Your task to perform on an android device: uninstall "Adobe Acrobat Reader" Image 0: 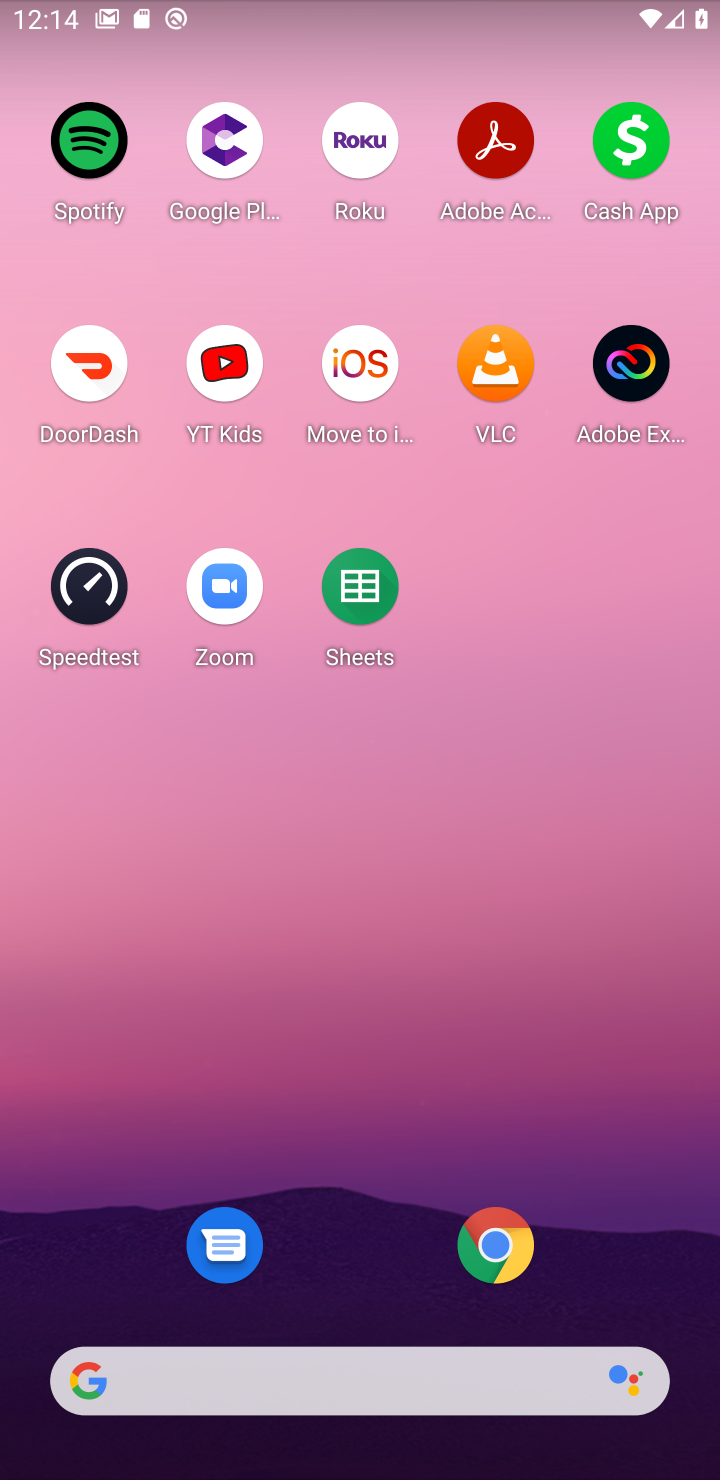
Step 0: press home button
Your task to perform on an android device: uninstall "Adobe Acrobat Reader" Image 1: 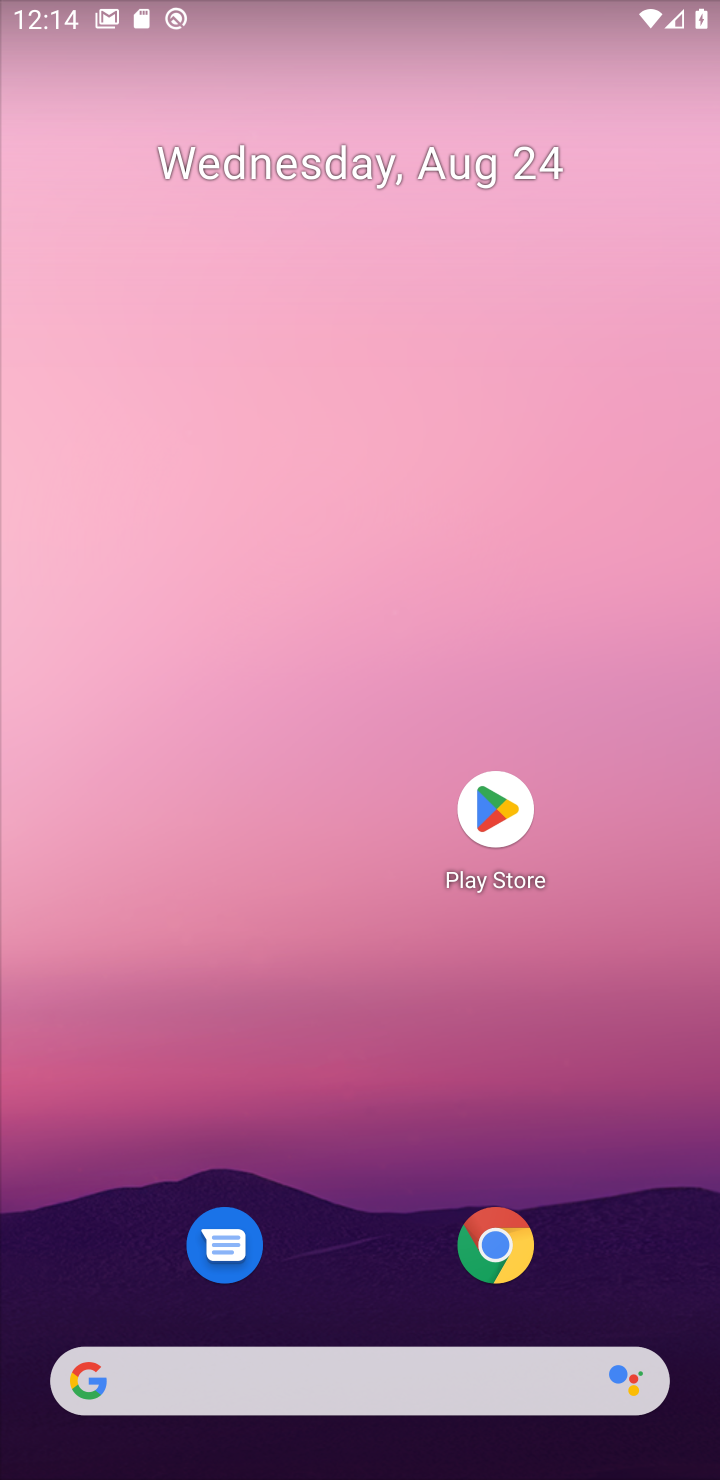
Step 1: click (510, 815)
Your task to perform on an android device: uninstall "Adobe Acrobat Reader" Image 2: 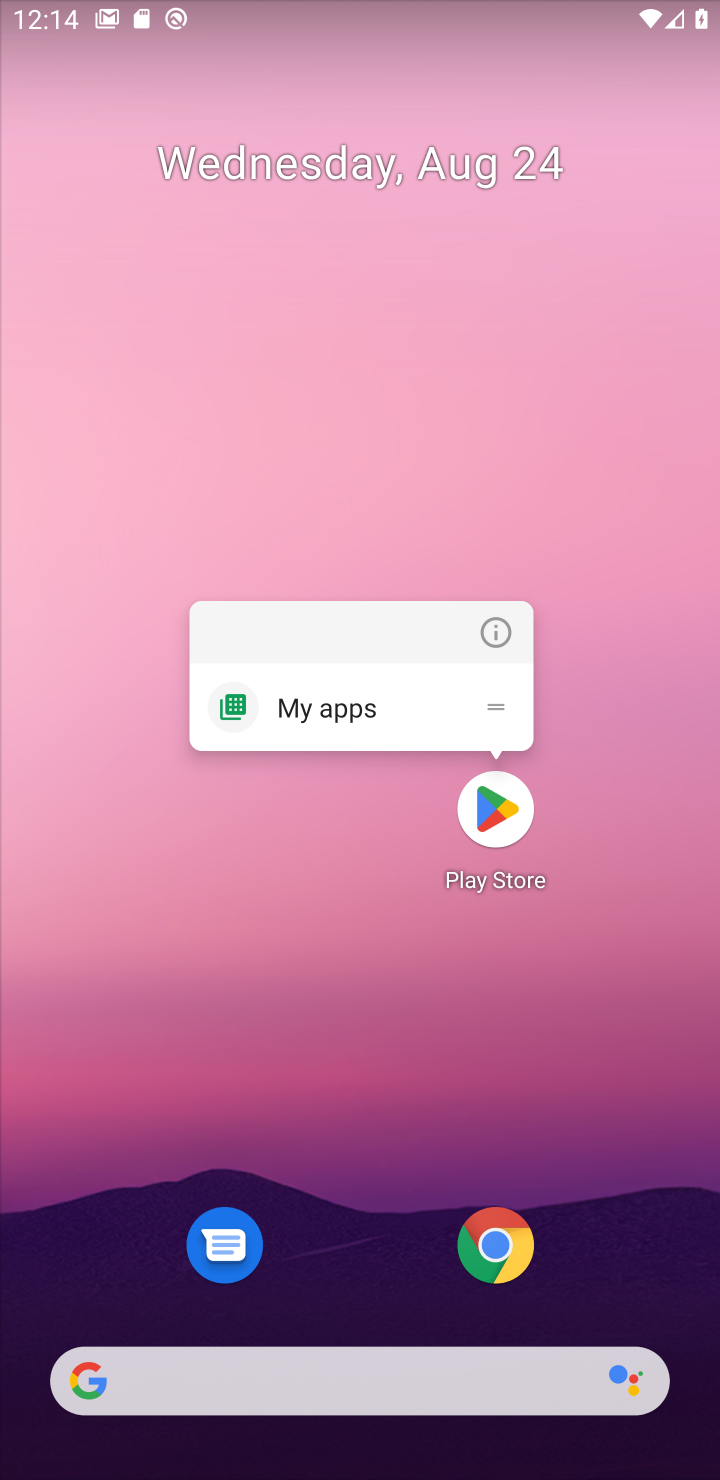
Step 2: click (510, 819)
Your task to perform on an android device: uninstall "Adobe Acrobat Reader" Image 3: 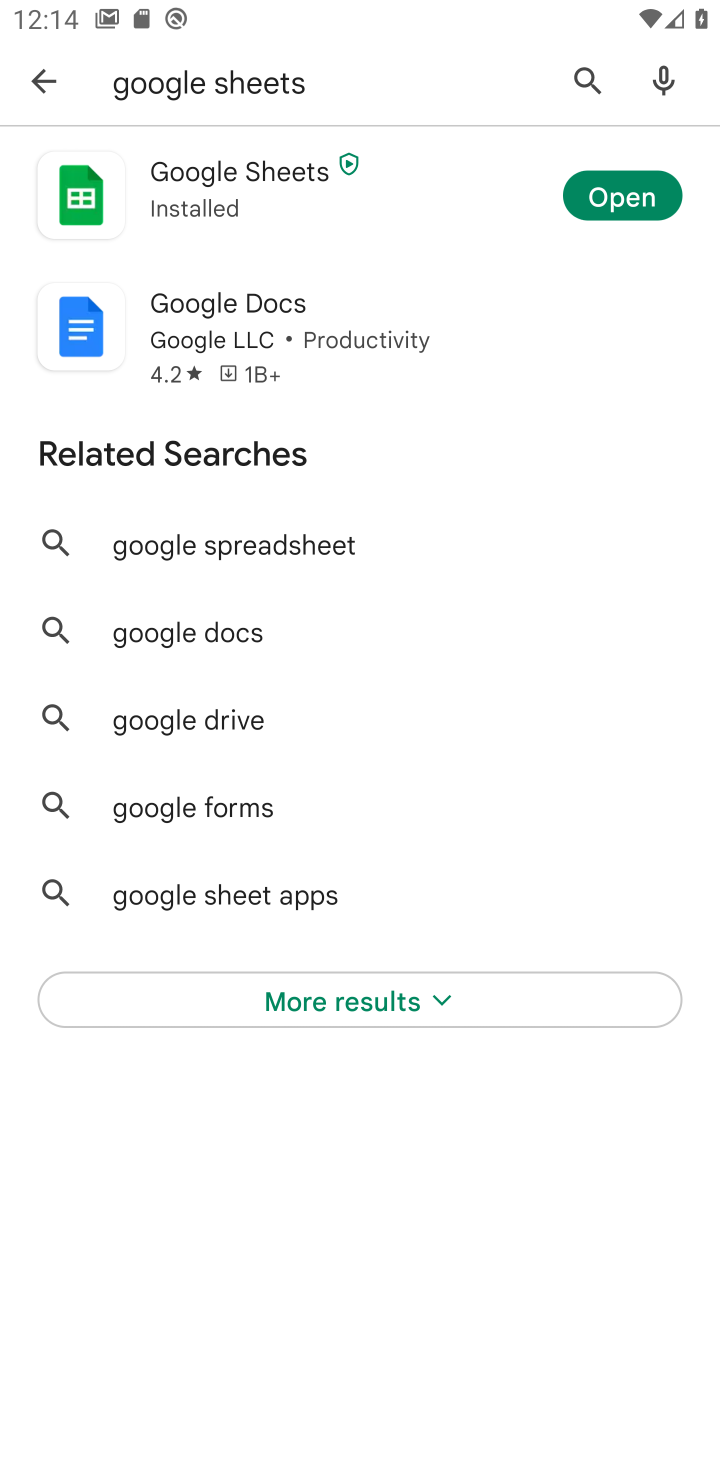
Step 3: click (575, 69)
Your task to perform on an android device: uninstall "Adobe Acrobat Reader" Image 4: 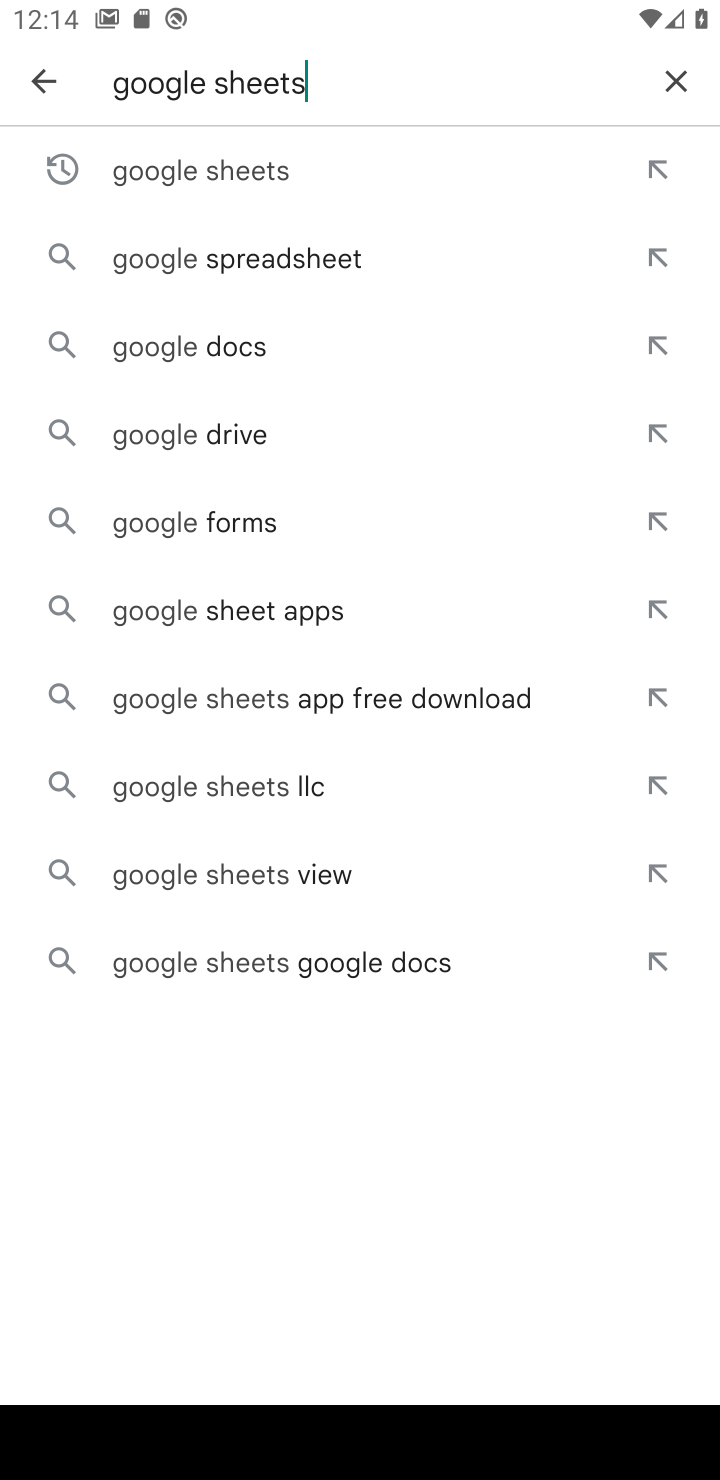
Step 4: click (671, 72)
Your task to perform on an android device: uninstall "Adobe Acrobat Reader" Image 5: 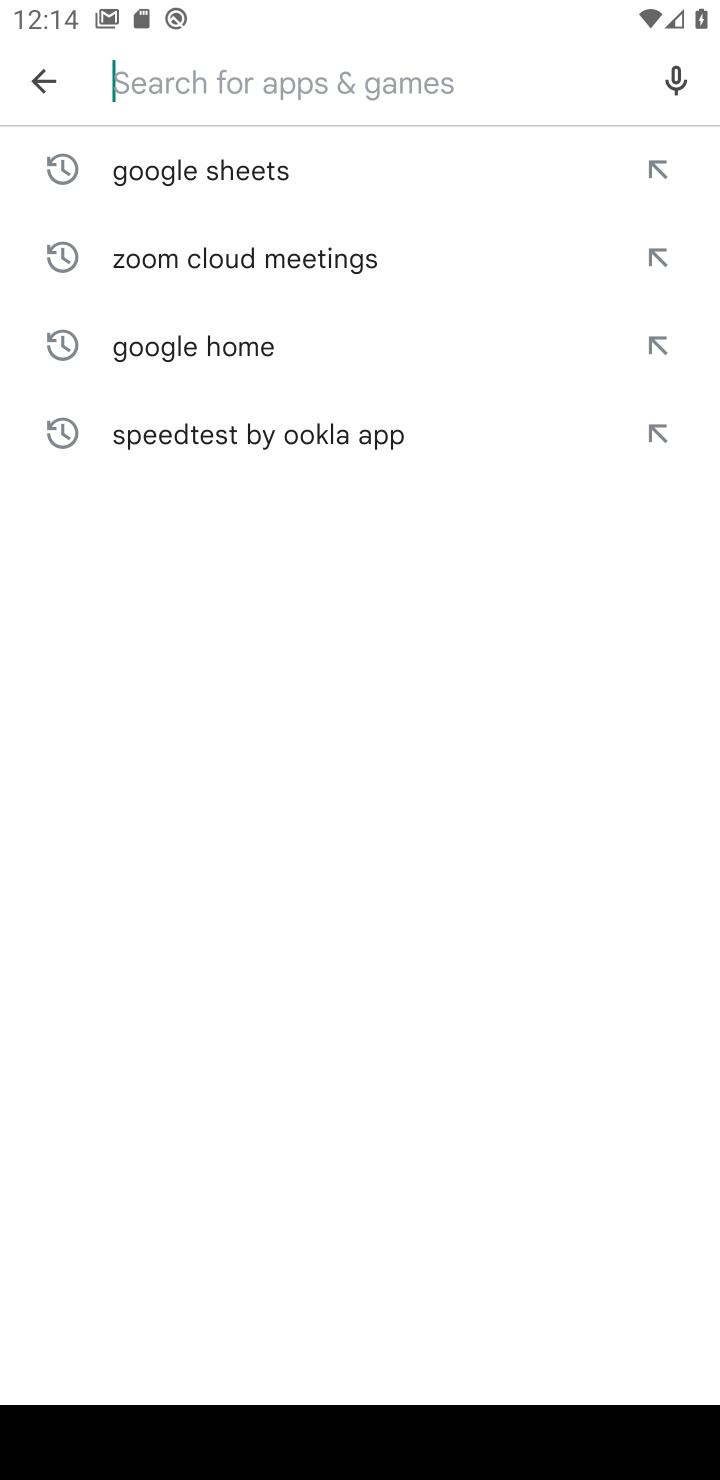
Step 5: type "Adobe Acrobat Reader"
Your task to perform on an android device: uninstall "Adobe Acrobat Reader" Image 6: 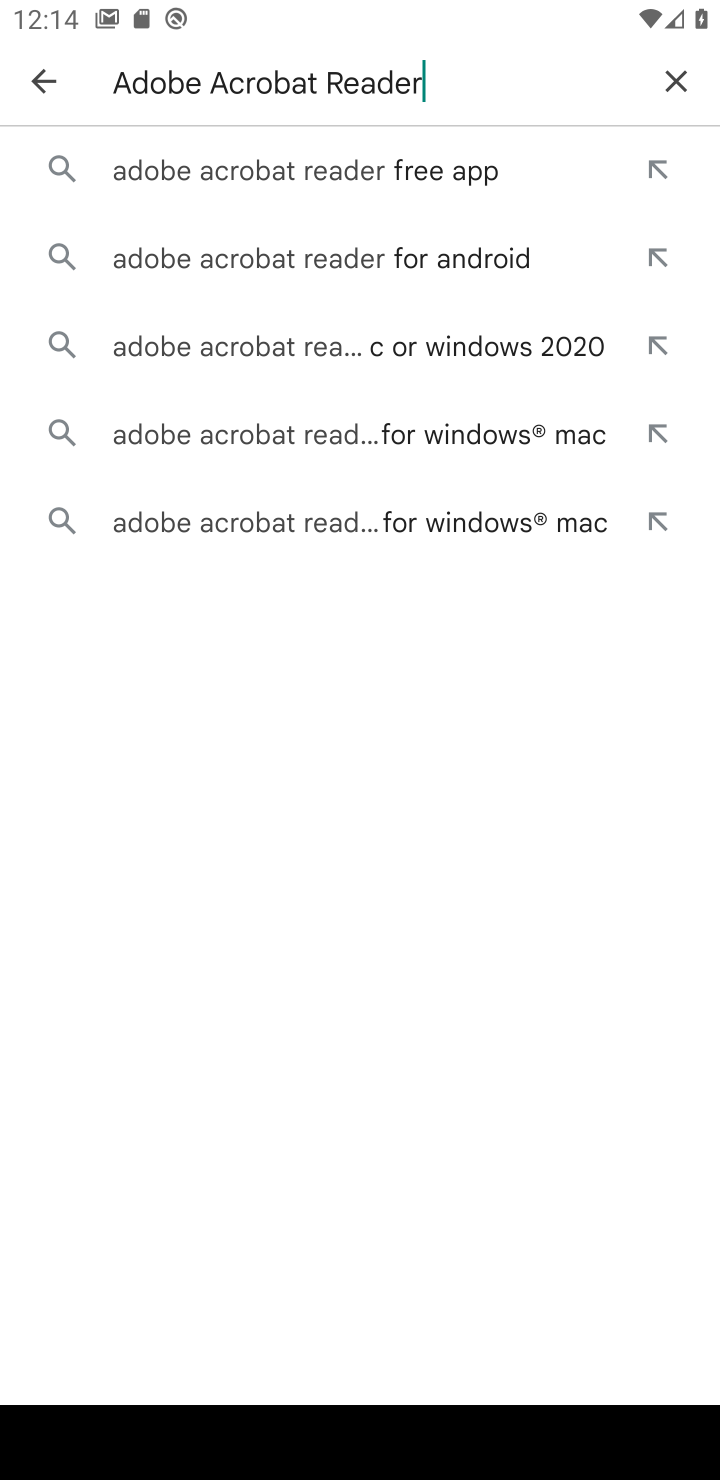
Step 6: click (253, 174)
Your task to perform on an android device: uninstall "Adobe Acrobat Reader" Image 7: 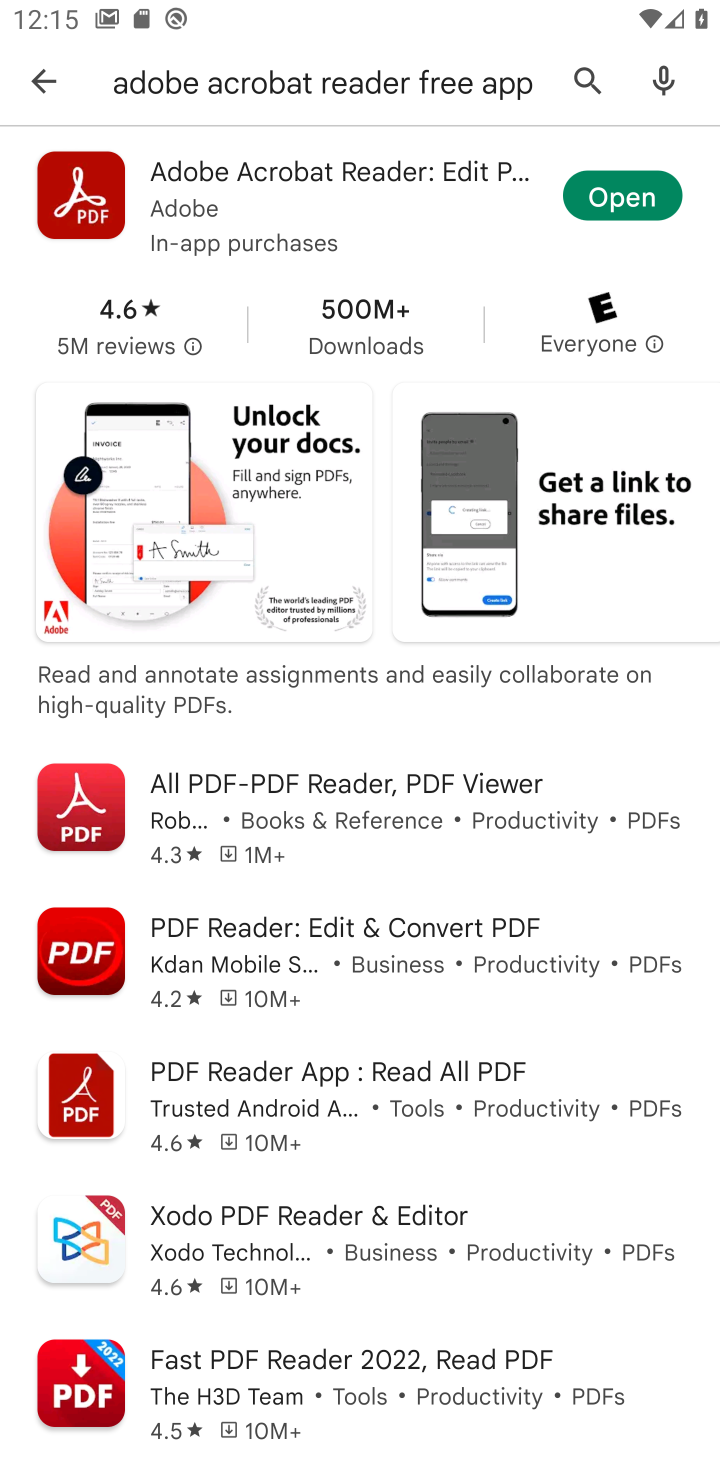
Step 7: click (178, 163)
Your task to perform on an android device: uninstall "Adobe Acrobat Reader" Image 8: 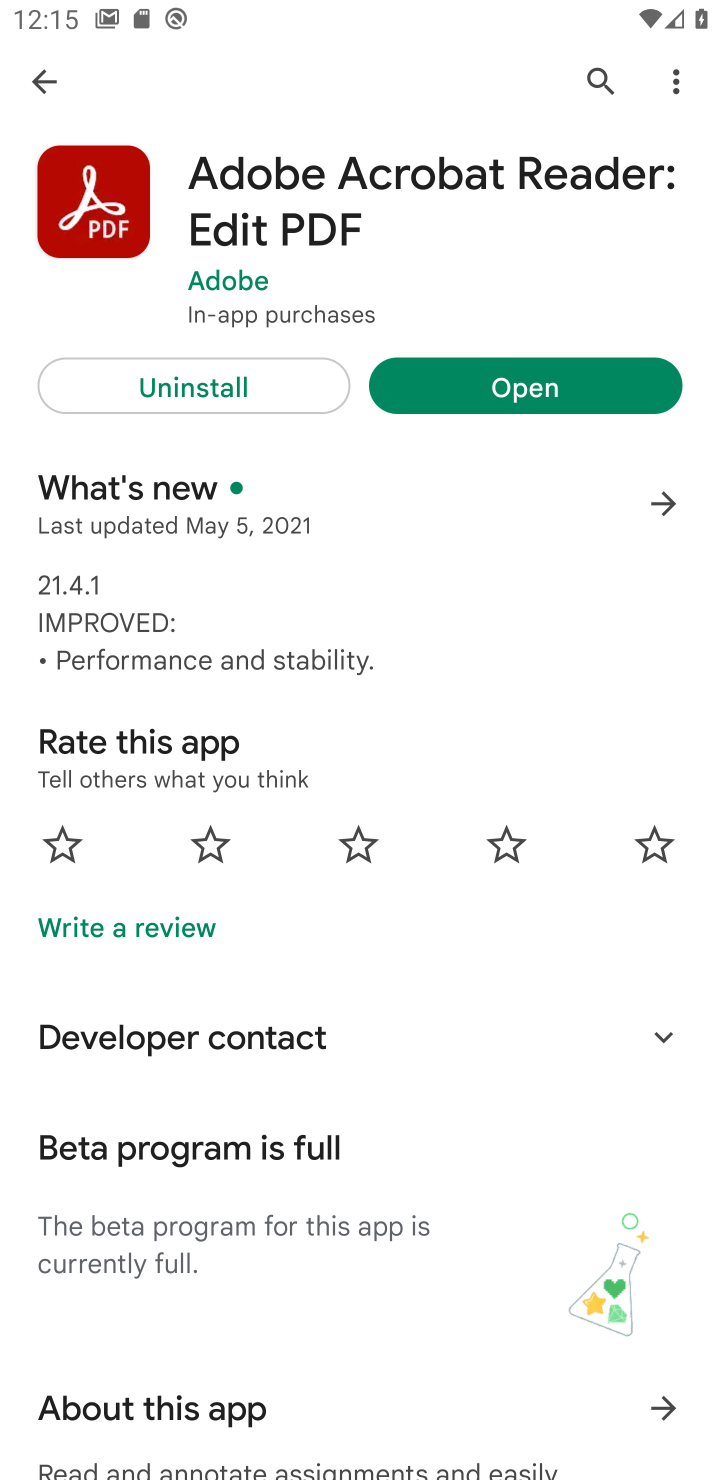
Step 8: click (199, 367)
Your task to perform on an android device: uninstall "Adobe Acrobat Reader" Image 9: 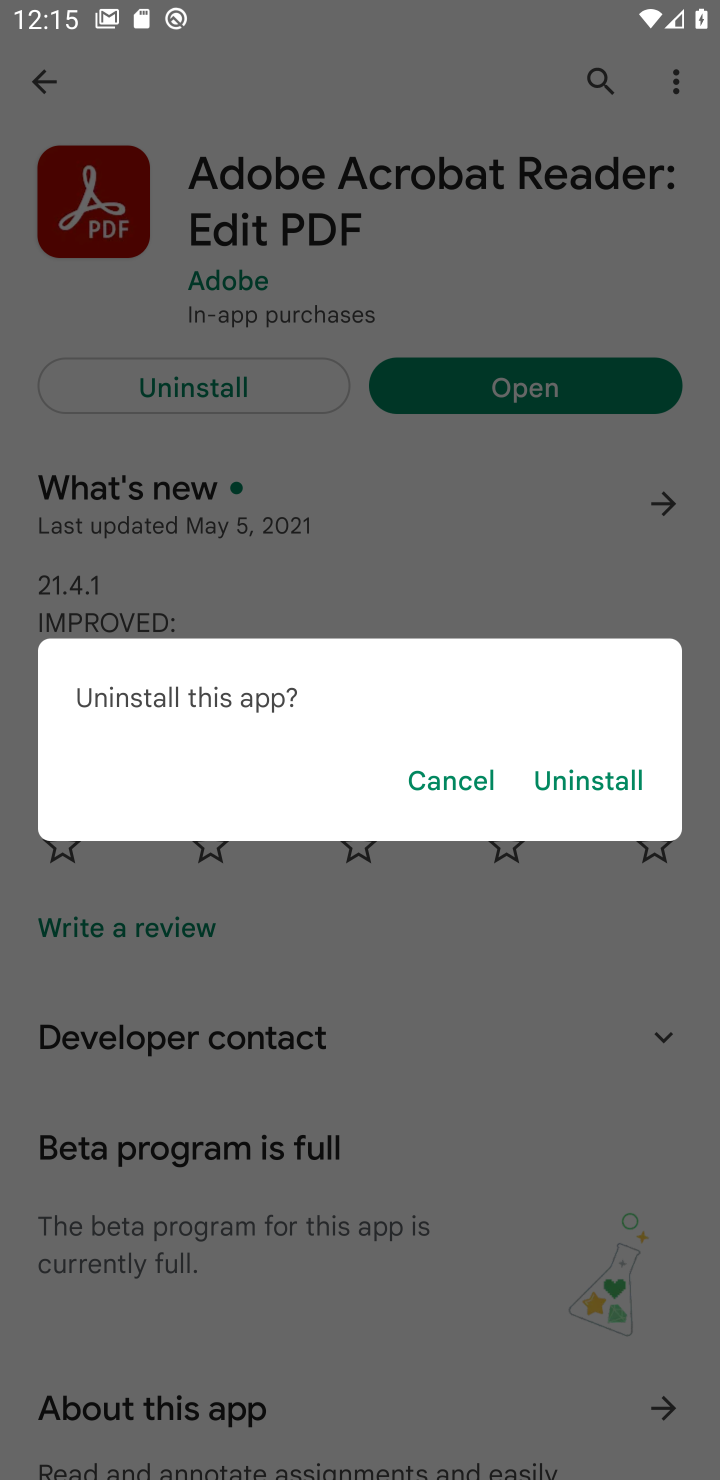
Step 9: click (543, 769)
Your task to perform on an android device: uninstall "Adobe Acrobat Reader" Image 10: 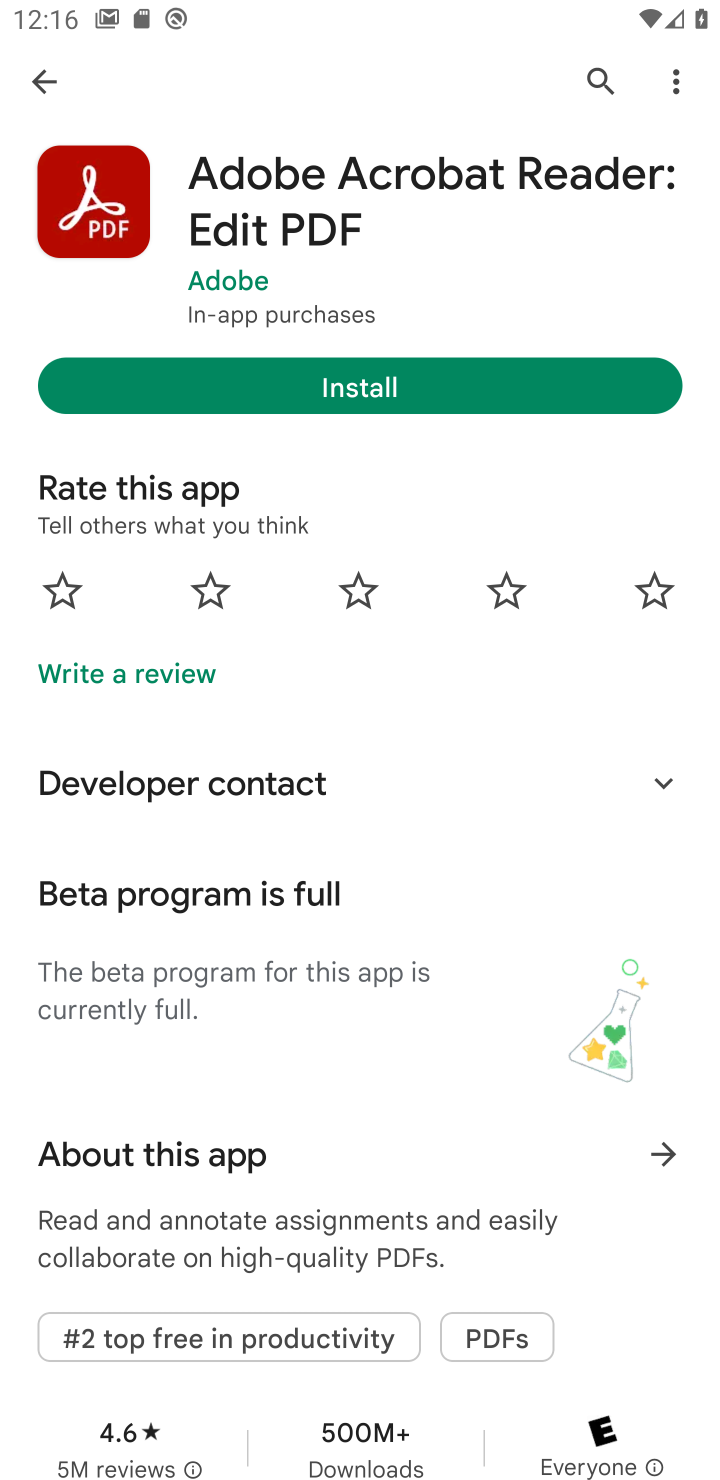
Step 10: task complete